Your task to perform on an android device: Open internet settings Image 0: 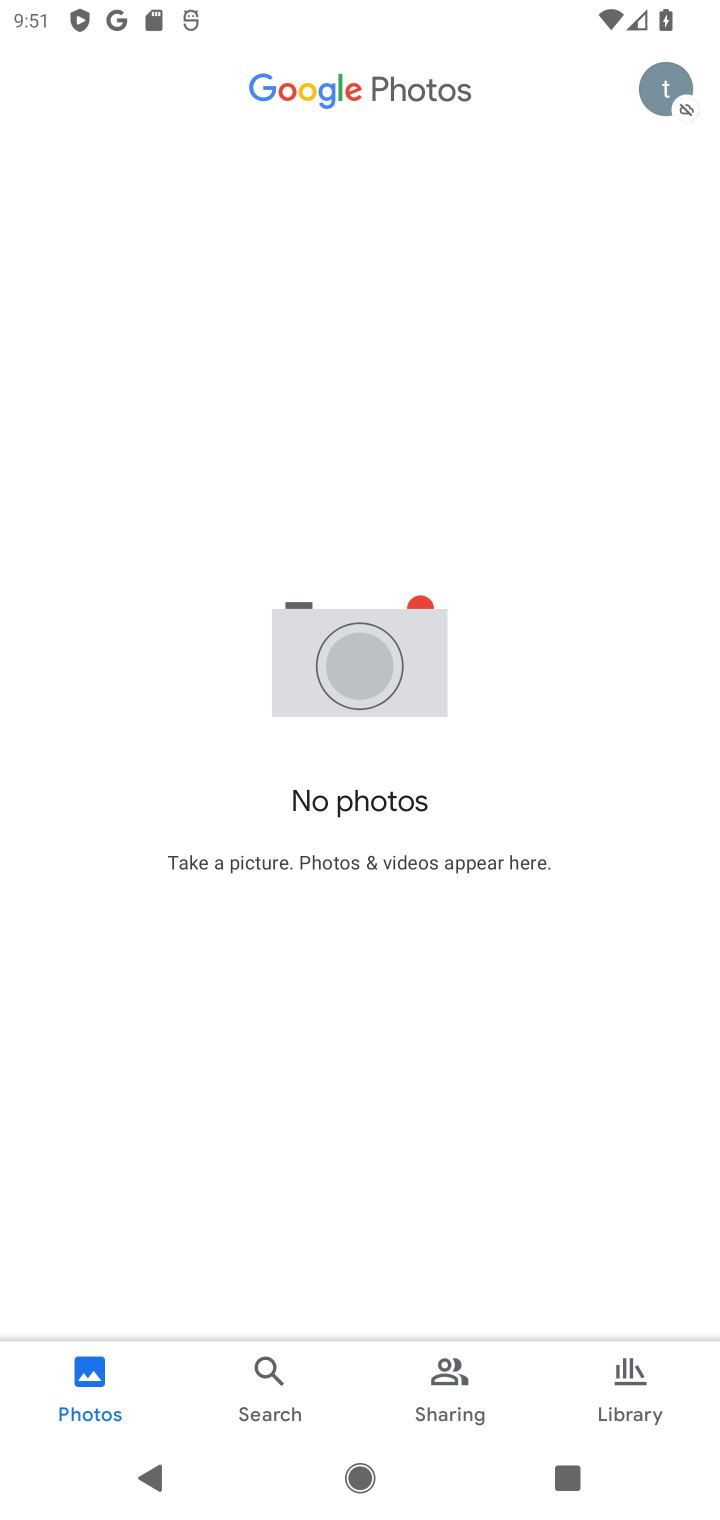
Step 0: press back button
Your task to perform on an android device: Open internet settings Image 1: 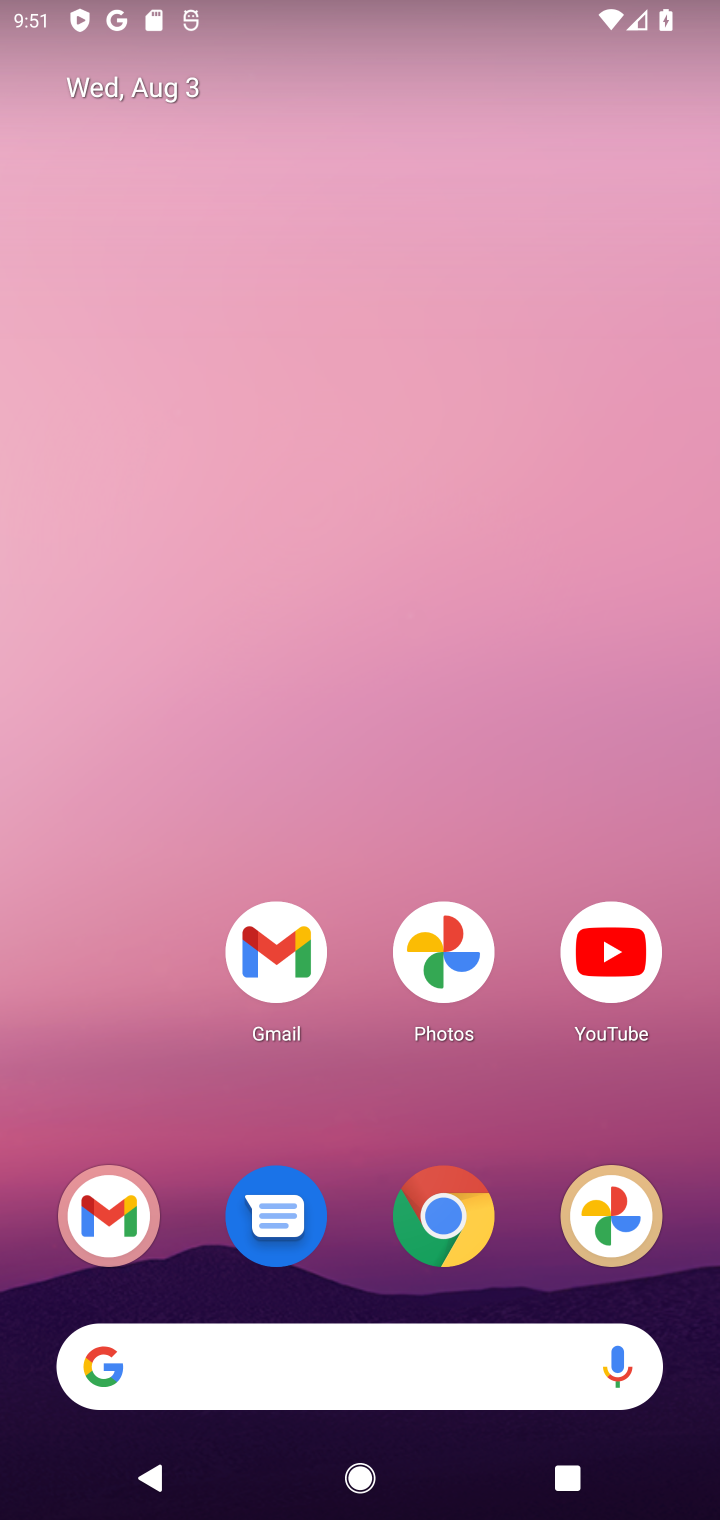
Step 1: drag from (121, 574) to (130, 87)
Your task to perform on an android device: Open internet settings Image 2: 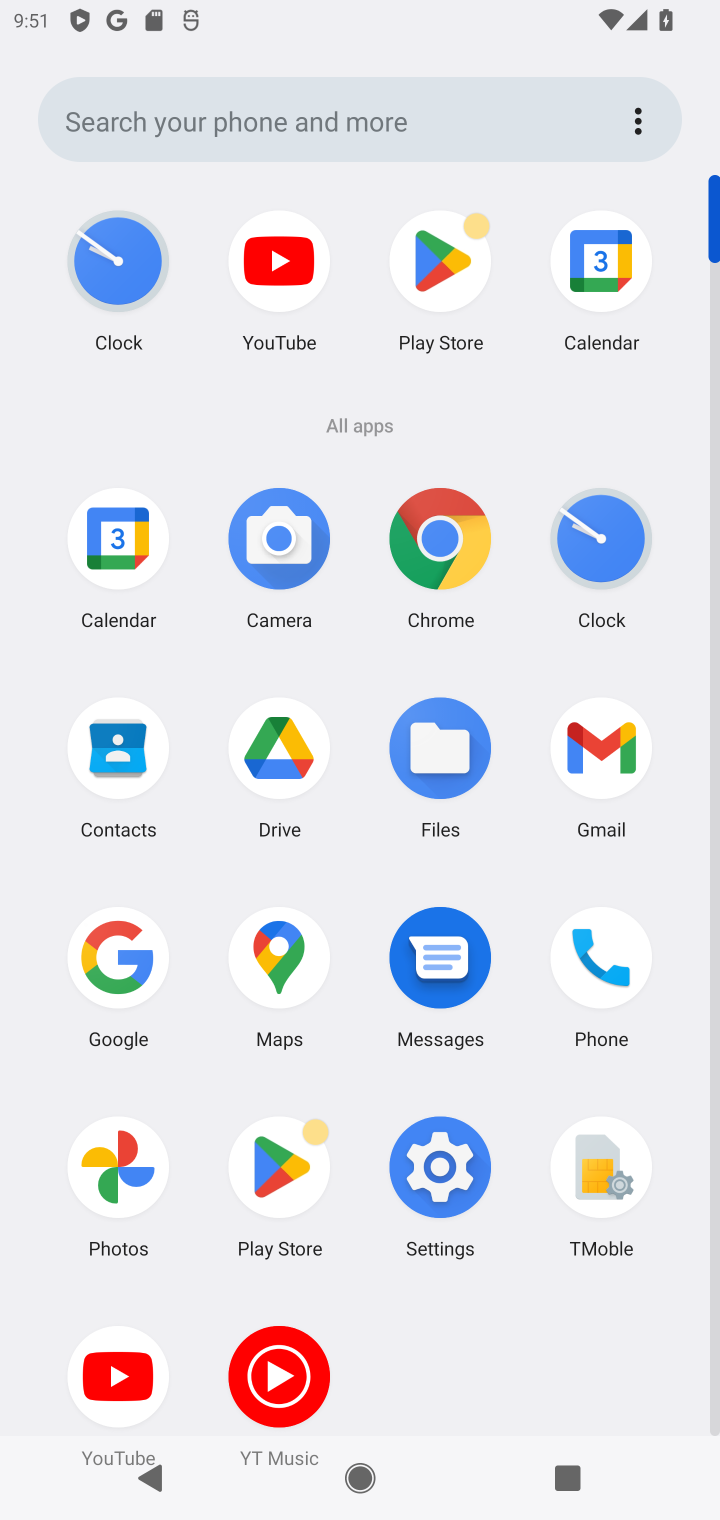
Step 2: click (421, 1161)
Your task to perform on an android device: Open internet settings Image 3: 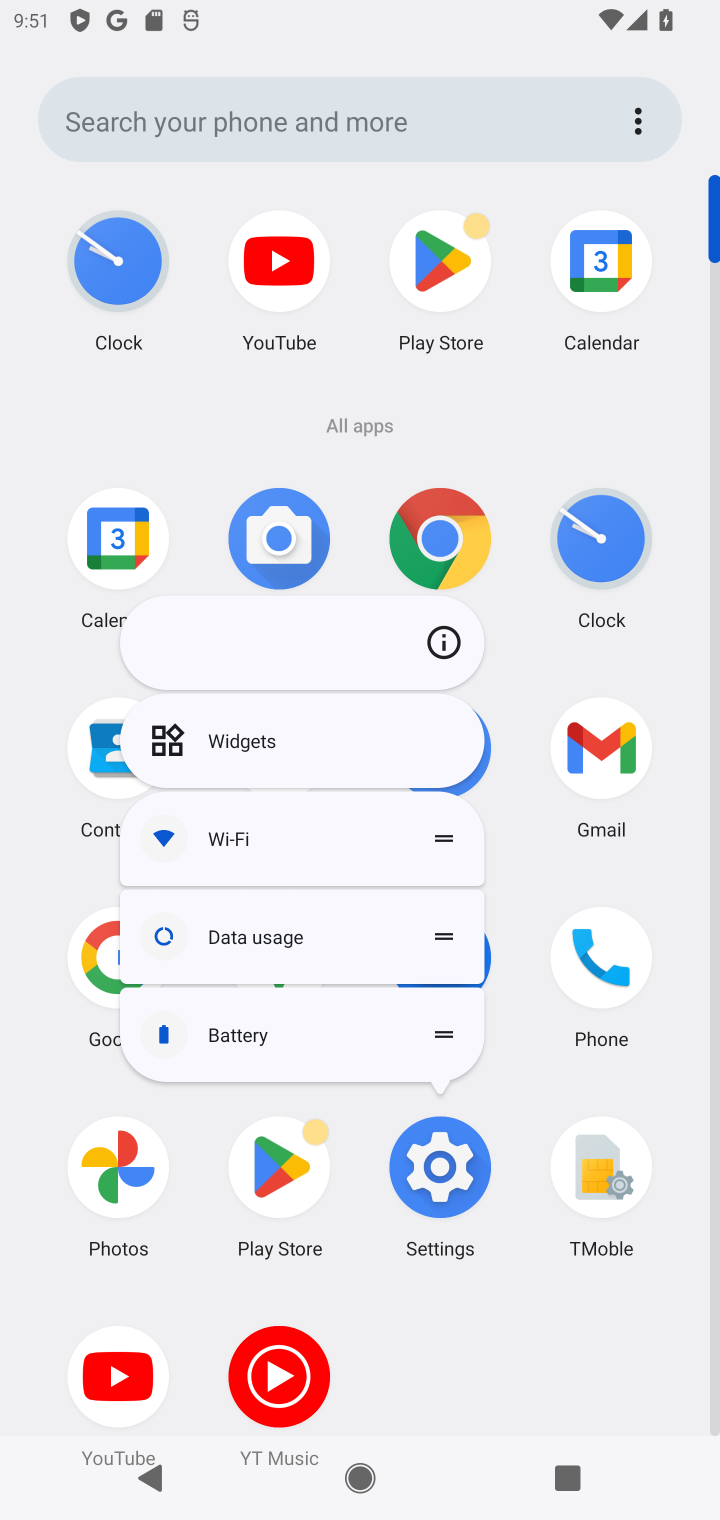
Step 3: click (436, 1182)
Your task to perform on an android device: Open internet settings Image 4: 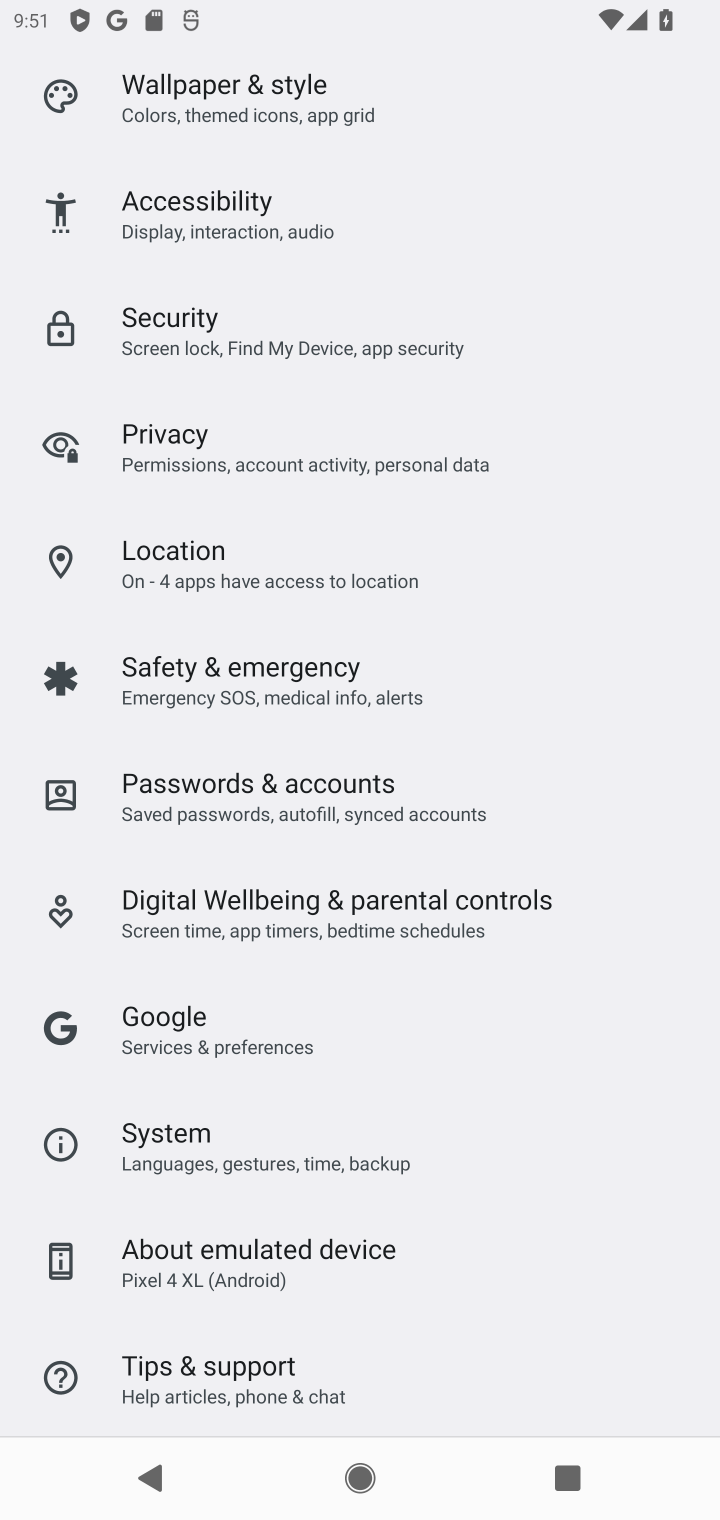
Step 4: drag from (337, 186) to (361, 1470)
Your task to perform on an android device: Open internet settings Image 5: 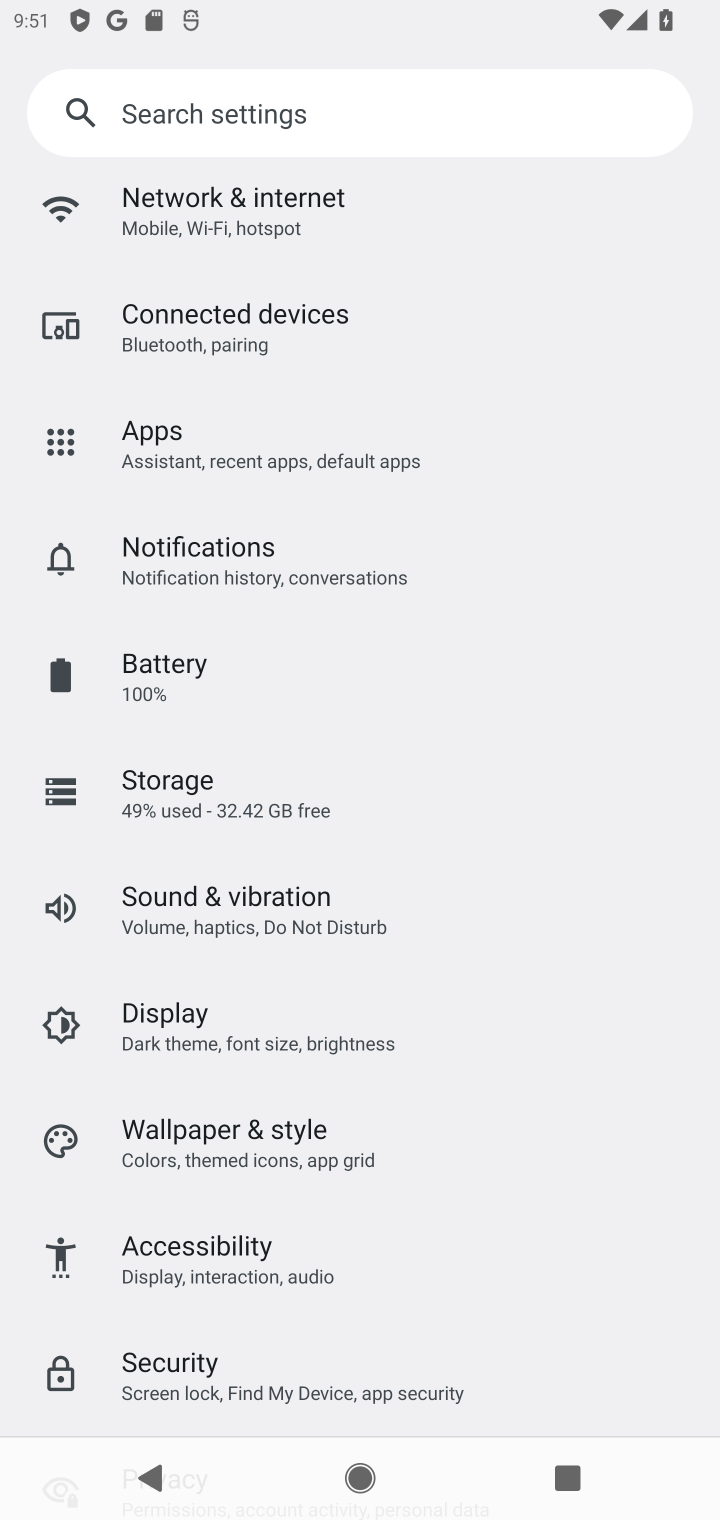
Step 5: click (296, 201)
Your task to perform on an android device: Open internet settings Image 6: 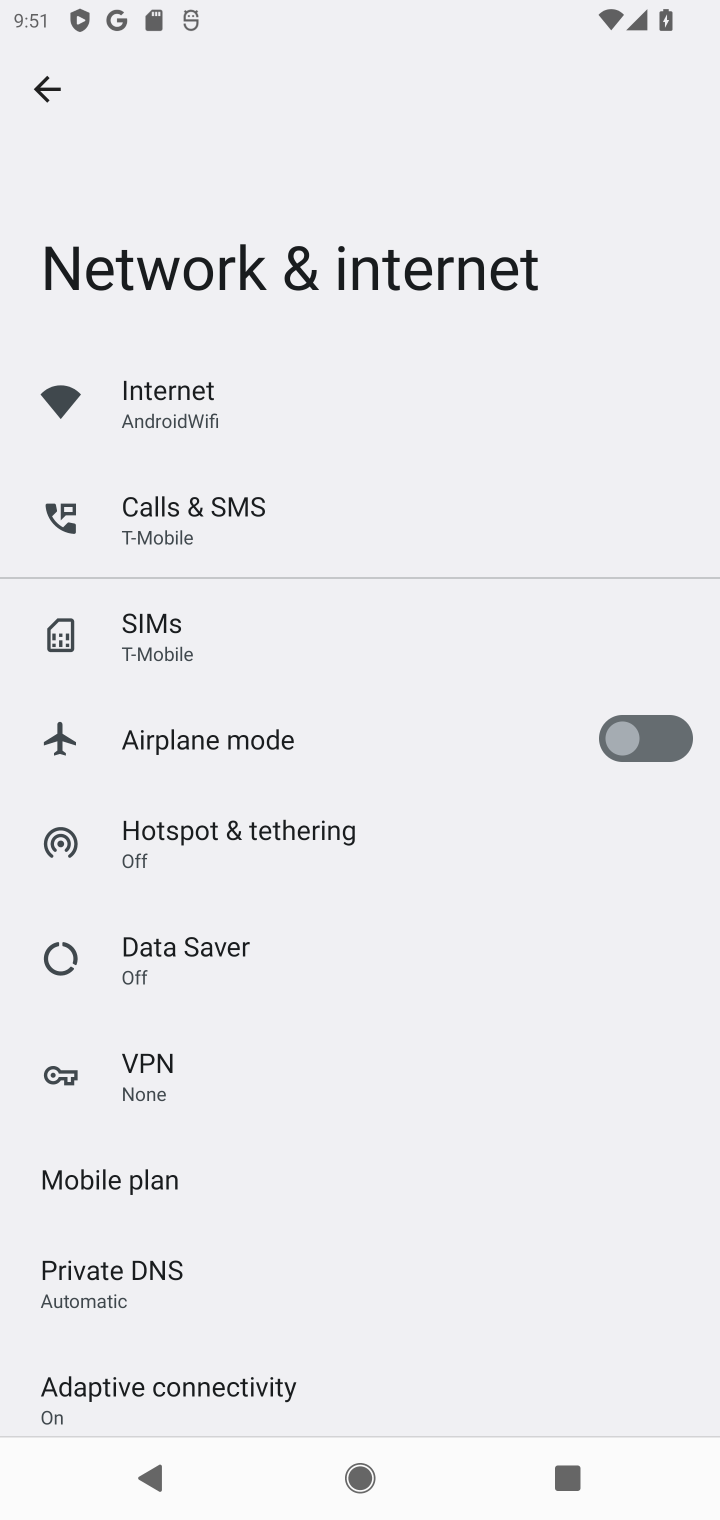
Step 6: task complete